Your task to perform on an android device: turn on airplane mode Image 0: 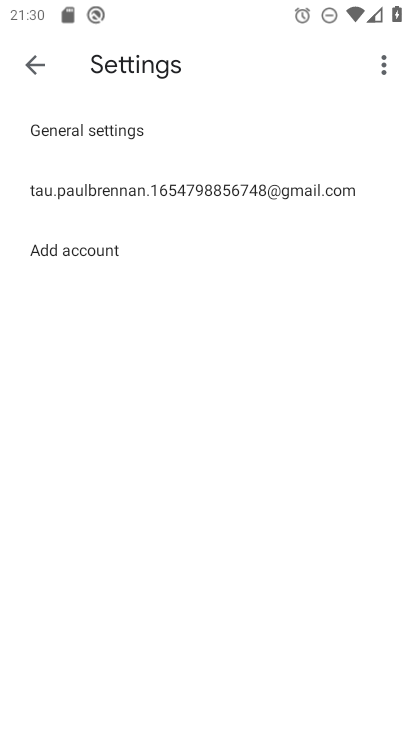
Step 0: press home button
Your task to perform on an android device: turn on airplane mode Image 1: 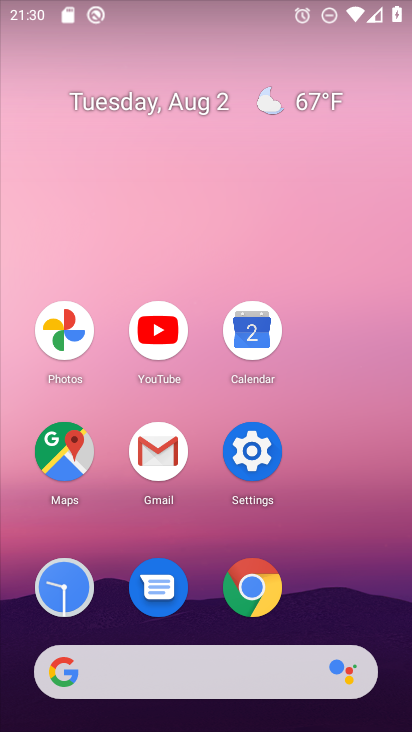
Step 1: click (257, 440)
Your task to perform on an android device: turn on airplane mode Image 2: 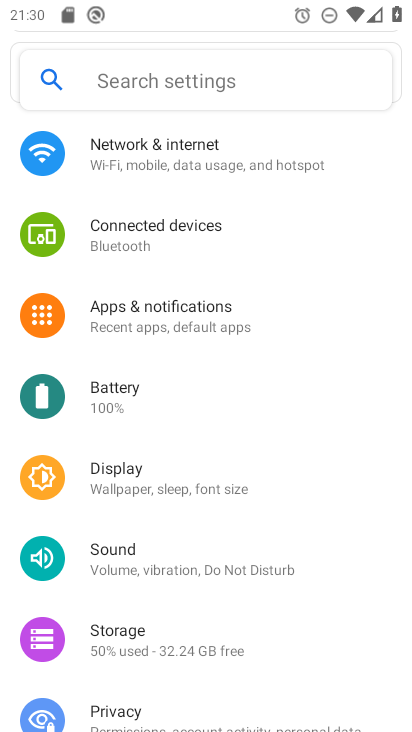
Step 2: click (163, 143)
Your task to perform on an android device: turn on airplane mode Image 3: 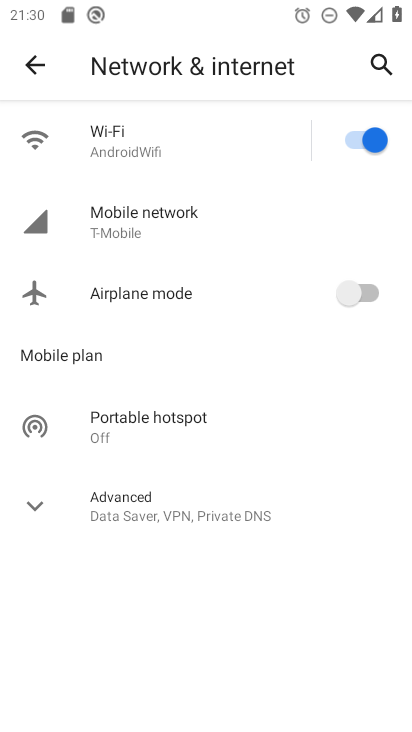
Step 3: click (347, 303)
Your task to perform on an android device: turn on airplane mode Image 4: 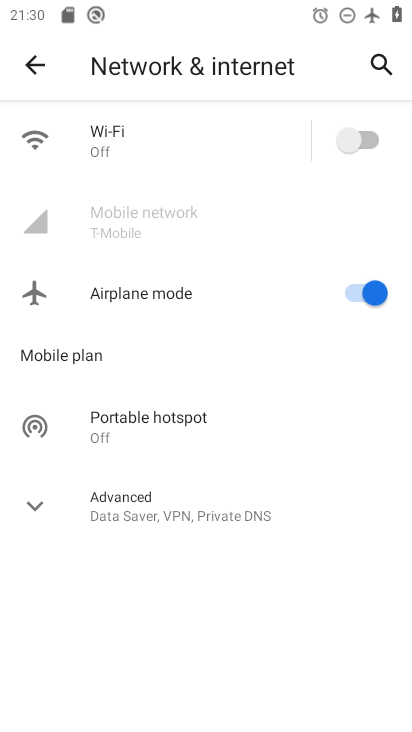
Step 4: task complete